Your task to perform on an android device: Toggle the flashlight Image 0: 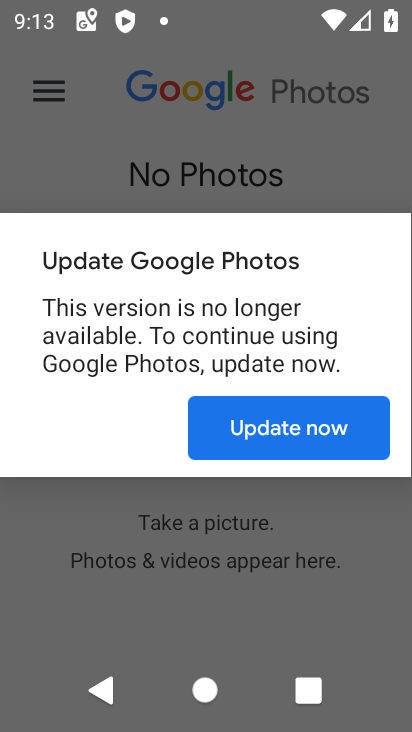
Step 0: press home button
Your task to perform on an android device: Toggle the flashlight Image 1: 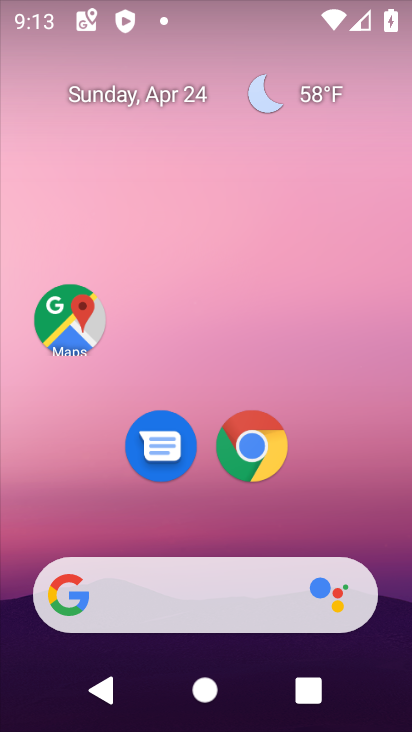
Step 1: task complete